Your task to perform on an android device: uninstall "DoorDash - Food Delivery" Image 0: 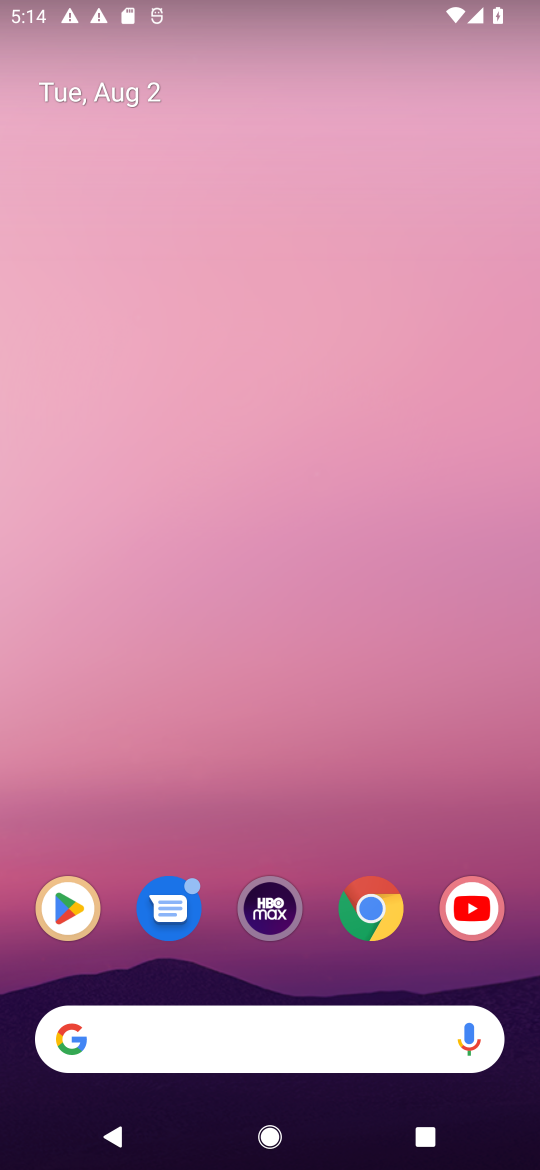
Step 0: click (62, 898)
Your task to perform on an android device: uninstall "DoorDash - Food Delivery" Image 1: 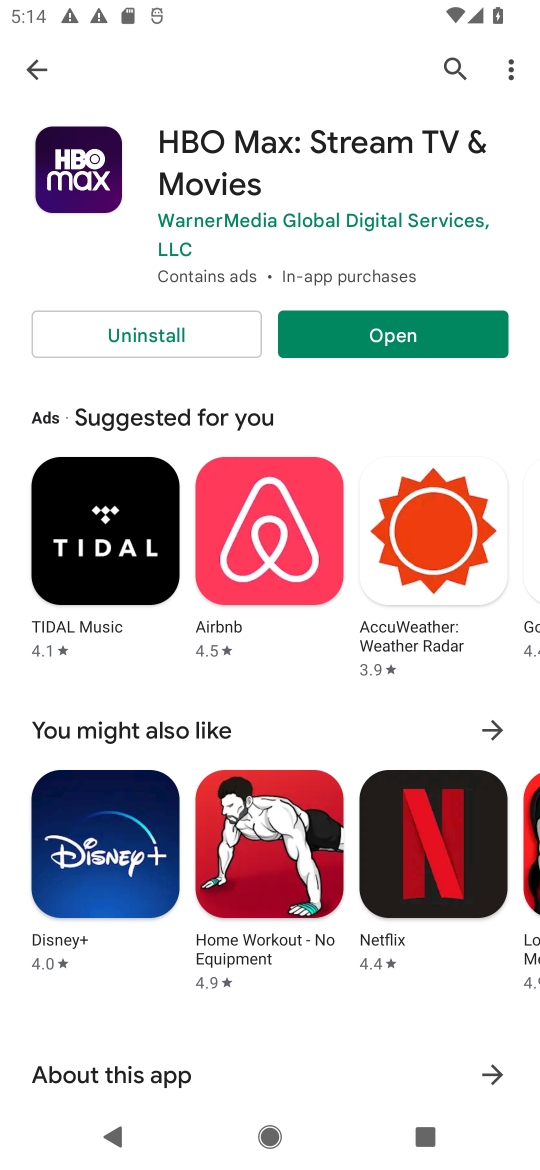
Step 1: click (447, 59)
Your task to perform on an android device: uninstall "DoorDash - Food Delivery" Image 2: 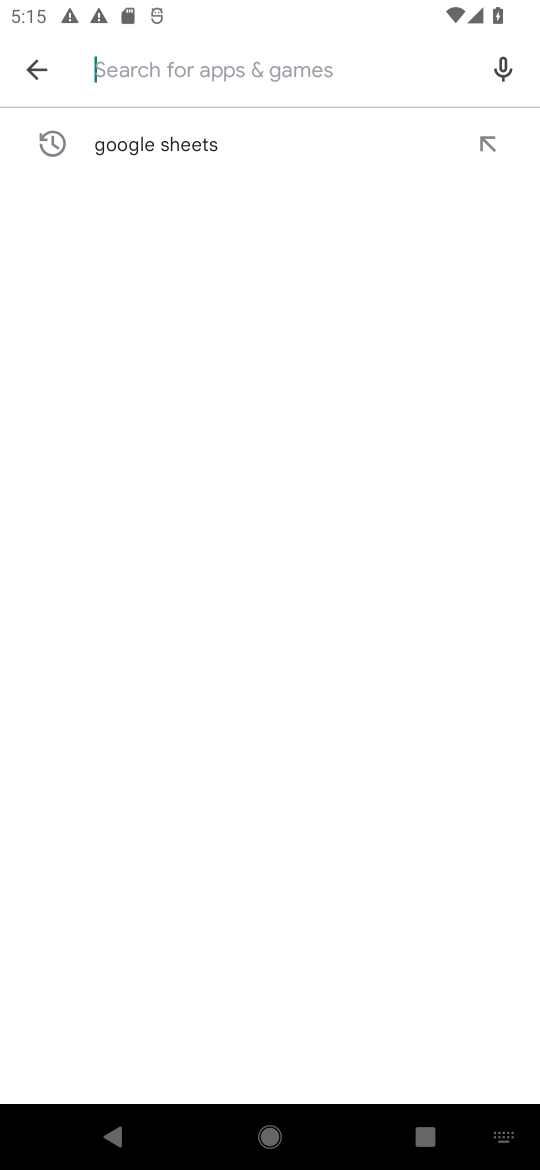
Step 2: type "DoorDash - Food Delivery"
Your task to perform on an android device: uninstall "DoorDash - Food Delivery" Image 3: 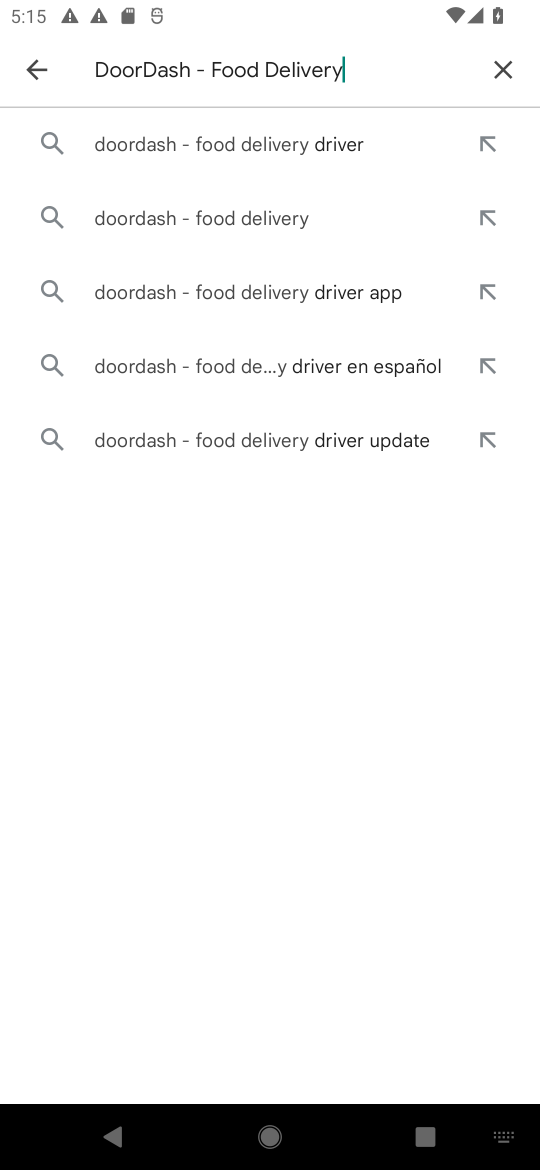
Step 3: click (233, 216)
Your task to perform on an android device: uninstall "DoorDash - Food Delivery" Image 4: 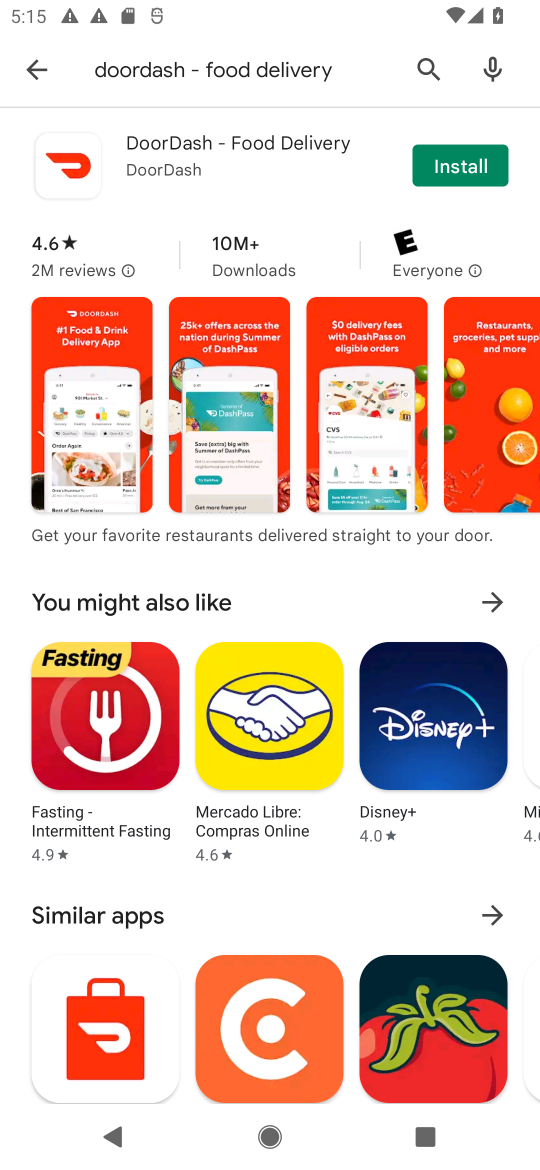
Step 4: click (243, 147)
Your task to perform on an android device: uninstall "DoorDash - Food Delivery" Image 5: 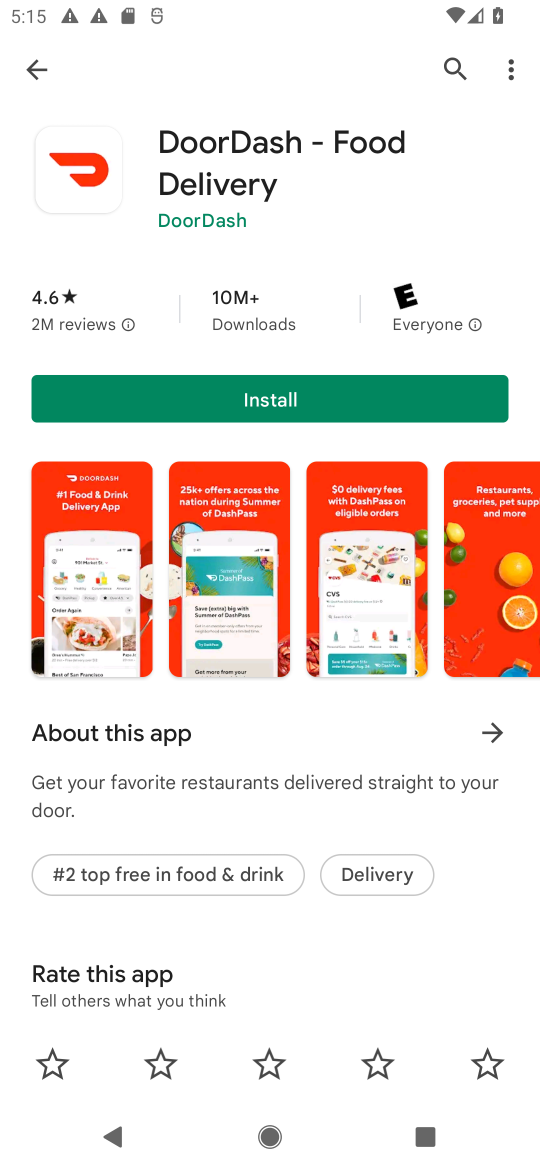
Step 5: task complete